Your task to perform on an android device: check the backup settings in the google photos Image 0: 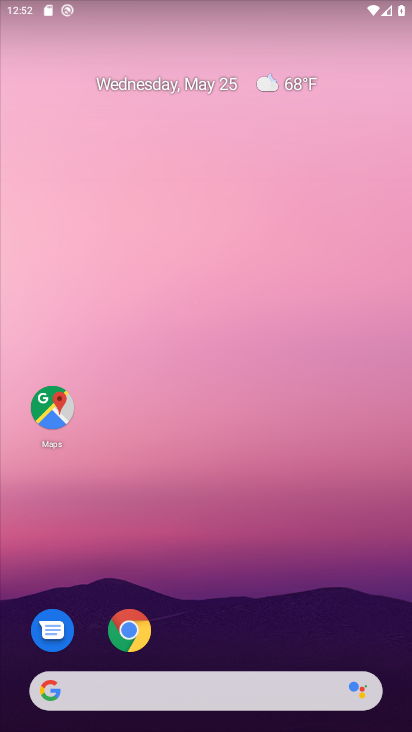
Step 0: drag from (195, 623) to (231, 153)
Your task to perform on an android device: check the backup settings in the google photos Image 1: 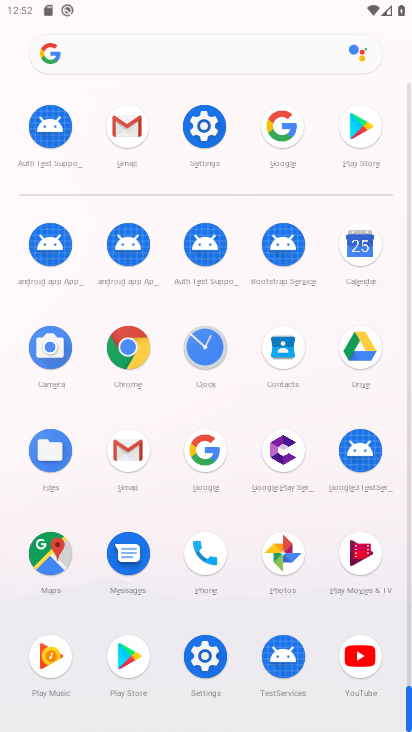
Step 1: click (266, 553)
Your task to perform on an android device: check the backup settings in the google photos Image 2: 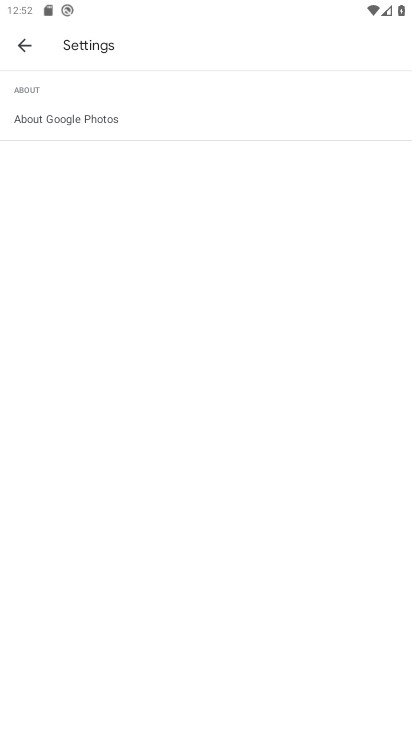
Step 2: click (20, 46)
Your task to perform on an android device: check the backup settings in the google photos Image 3: 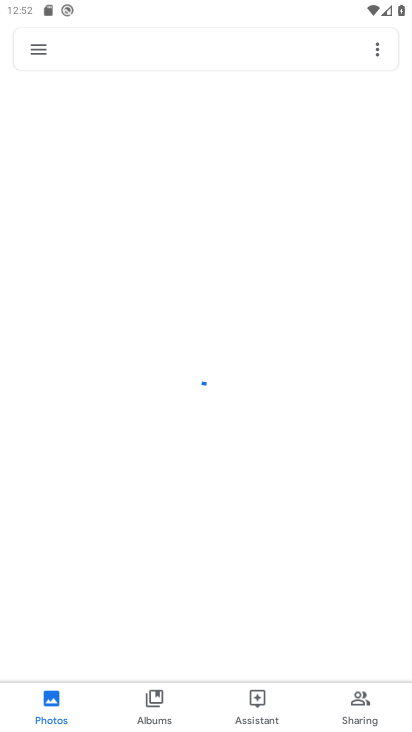
Step 3: click (31, 49)
Your task to perform on an android device: check the backup settings in the google photos Image 4: 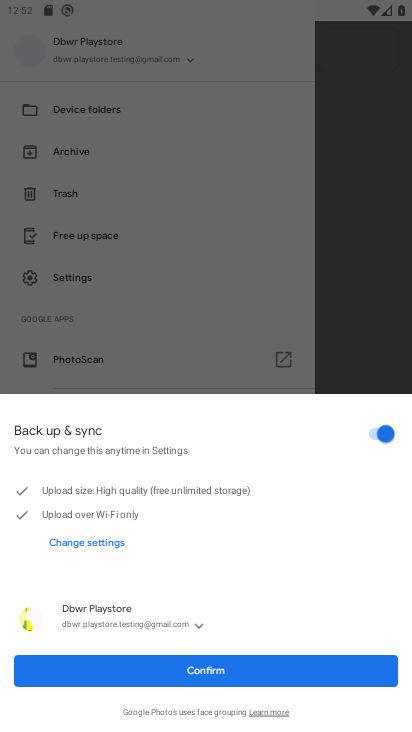
Step 4: click (192, 683)
Your task to perform on an android device: check the backup settings in the google photos Image 5: 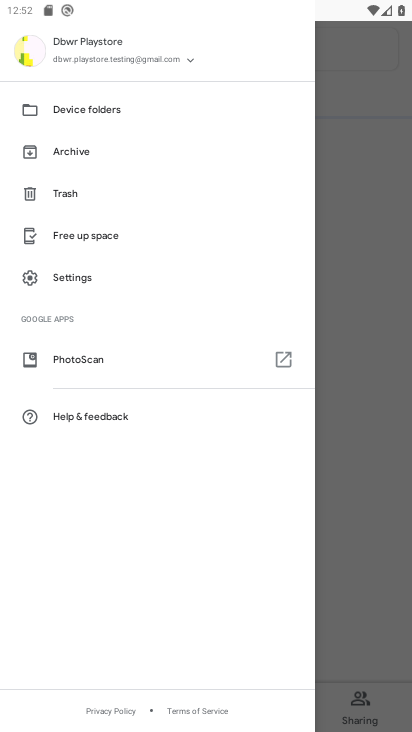
Step 5: click (78, 282)
Your task to perform on an android device: check the backup settings in the google photos Image 6: 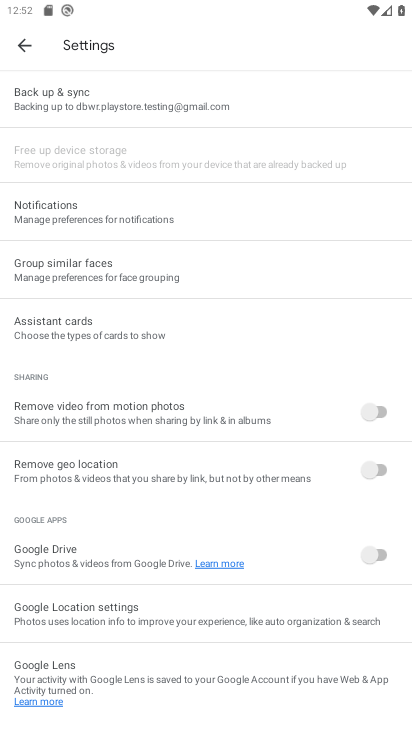
Step 6: click (103, 113)
Your task to perform on an android device: check the backup settings in the google photos Image 7: 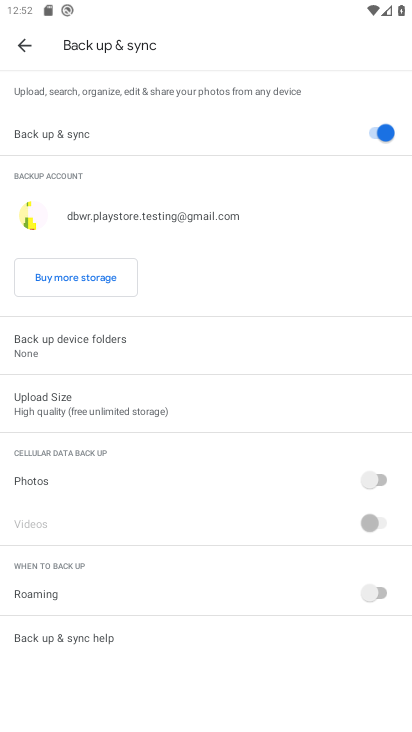
Step 7: task complete